Your task to perform on an android device: toggle improve location accuracy Image 0: 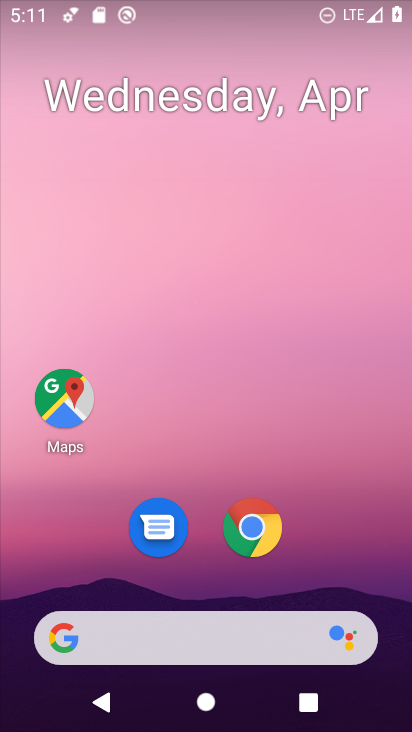
Step 0: drag from (354, 423) to (339, 12)
Your task to perform on an android device: toggle improve location accuracy Image 1: 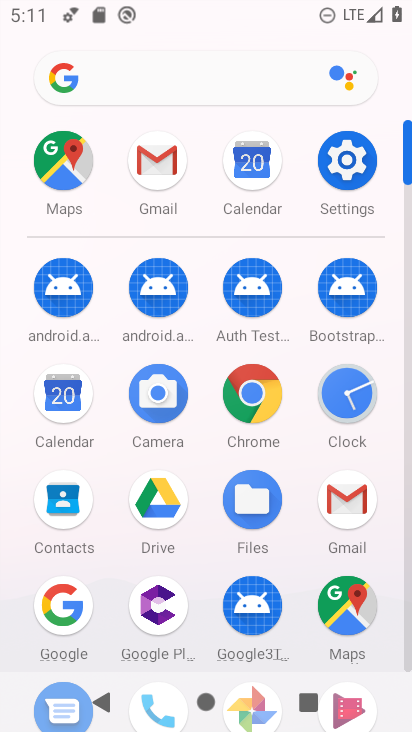
Step 1: click (347, 167)
Your task to perform on an android device: toggle improve location accuracy Image 2: 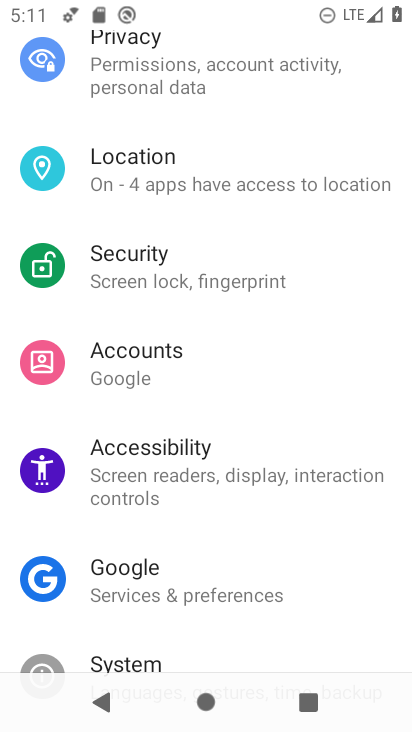
Step 2: click (130, 184)
Your task to perform on an android device: toggle improve location accuracy Image 3: 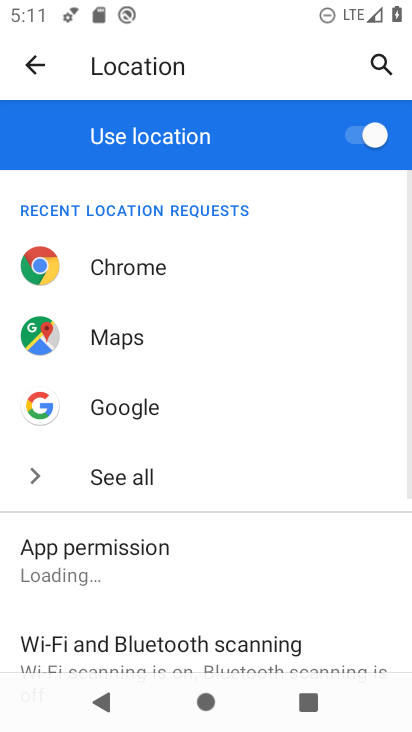
Step 3: drag from (264, 519) to (221, 37)
Your task to perform on an android device: toggle improve location accuracy Image 4: 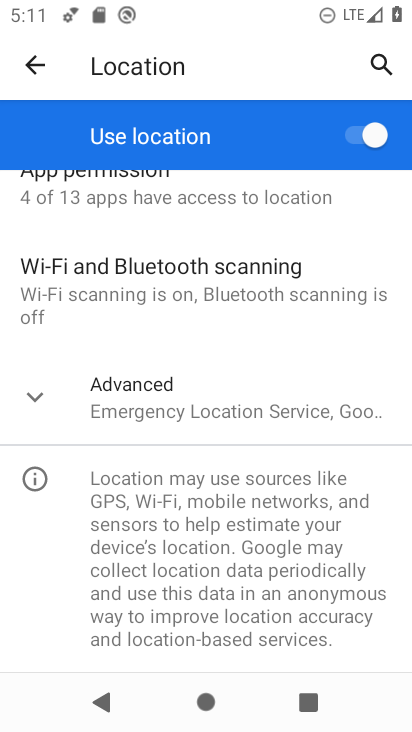
Step 4: click (38, 402)
Your task to perform on an android device: toggle improve location accuracy Image 5: 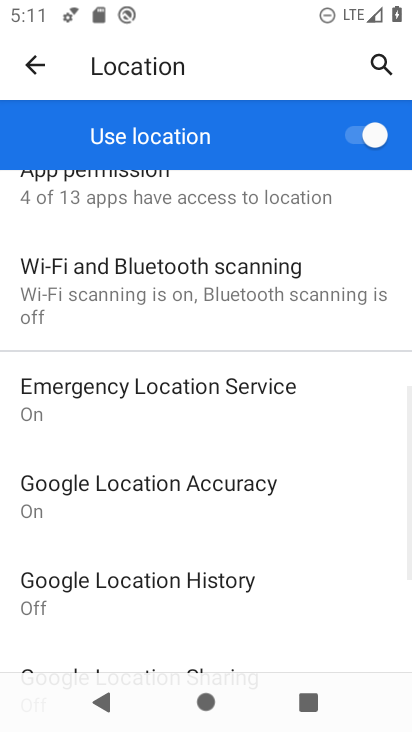
Step 5: click (173, 490)
Your task to perform on an android device: toggle improve location accuracy Image 6: 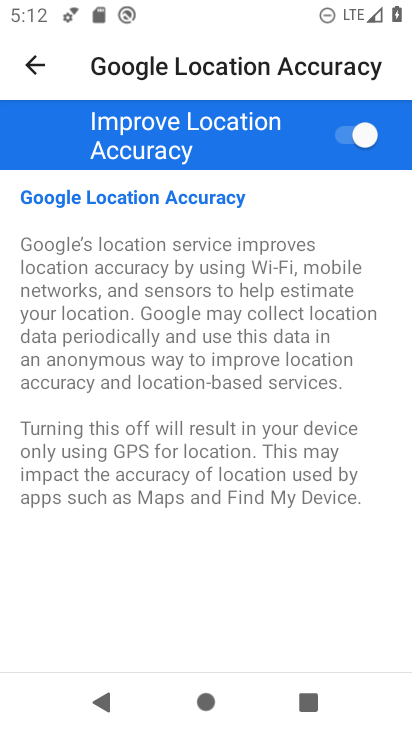
Step 6: click (365, 135)
Your task to perform on an android device: toggle improve location accuracy Image 7: 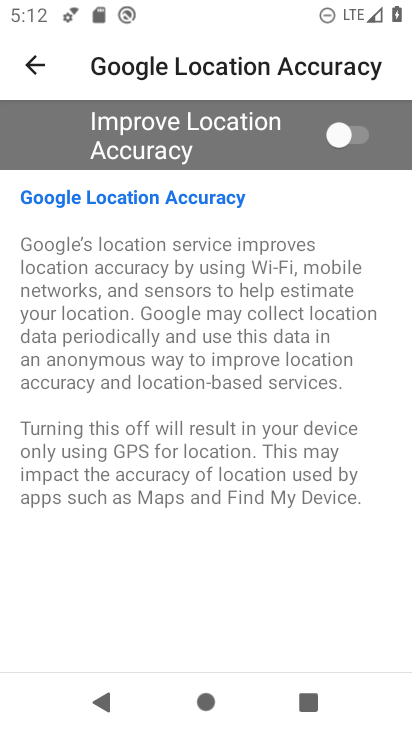
Step 7: task complete